Your task to perform on an android device: turn off improve location accuracy Image 0: 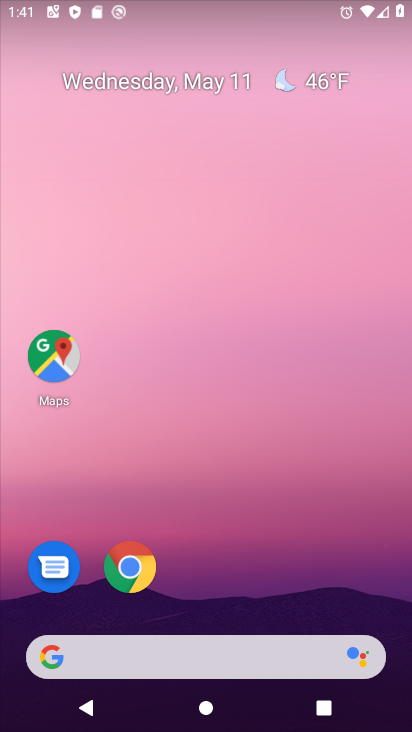
Step 0: drag from (210, 618) to (104, 1)
Your task to perform on an android device: turn off improve location accuracy Image 1: 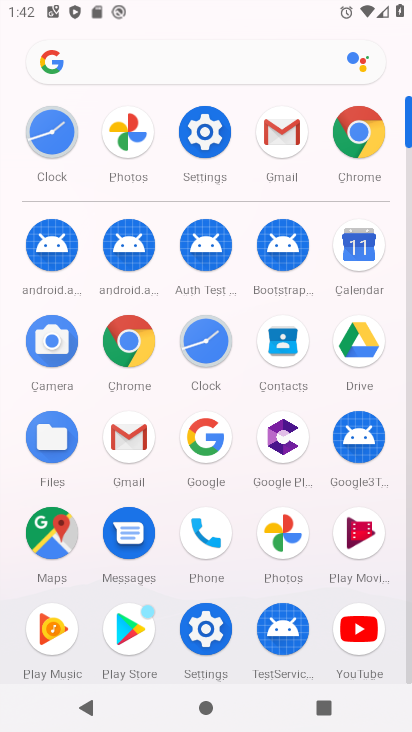
Step 1: click (203, 635)
Your task to perform on an android device: turn off improve location accuracy Image 2: 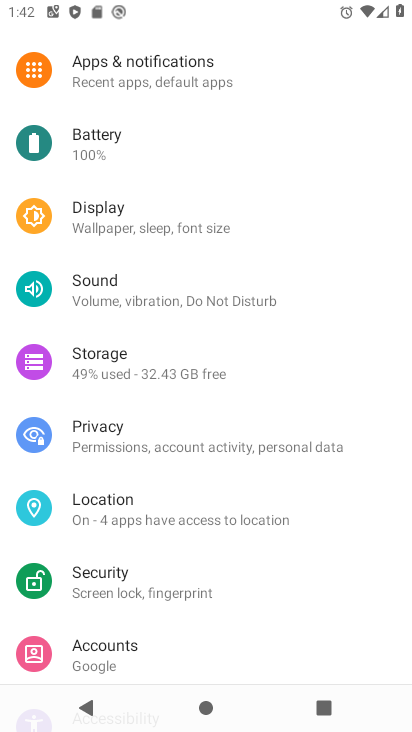
Step 2: click (152, 506)
Your task to perform on an android device: turn off improve location accuracy Image 3: 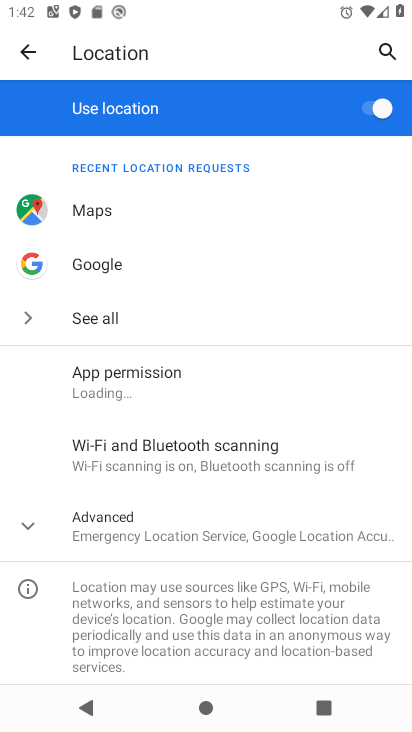
Step 3: click (184, 522)
Your task to perform on an android device: turn off improve location accuracy Image 4: 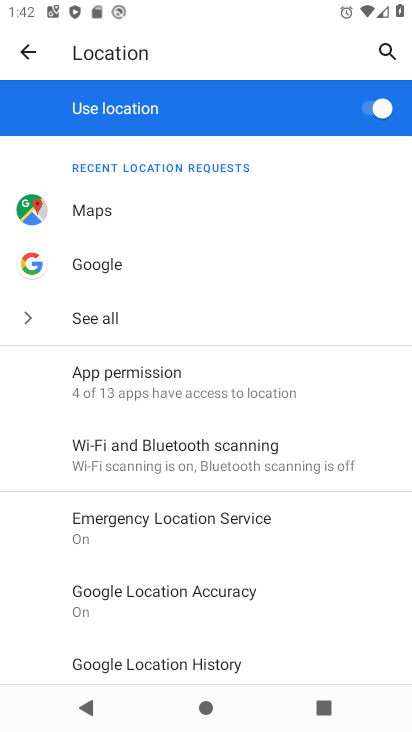
Step 4: click (225, 593)
Your task to perform on an android device: turn off improve location accuracy Image 5: 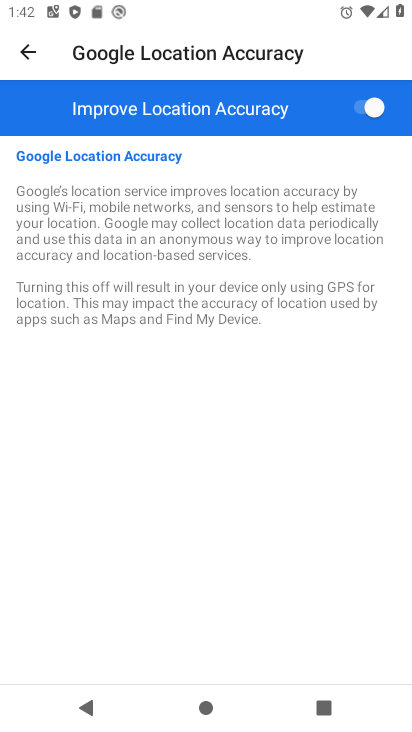
Step 5: click (367, 106)
Your task to perform on an android device: turn off improve location accuracy Image 6: 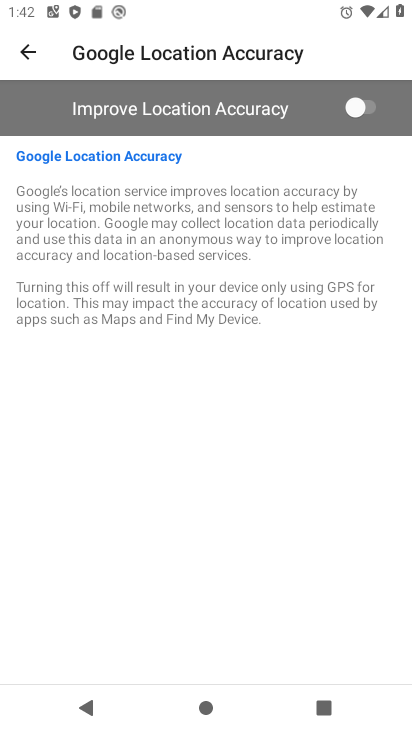
Step 6: task complete